Your task to perform on an android device: toggle notifications settings in the gmail app Image 0: 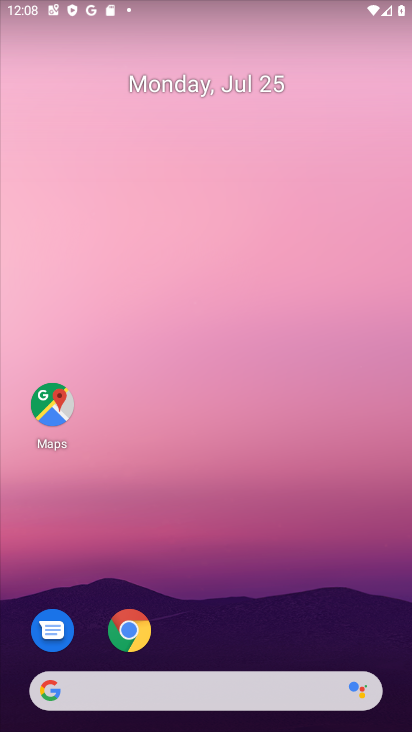
Step 0: press home button
Your task to perform on an android device: toggle notifications settings in the gmail app Image 1: 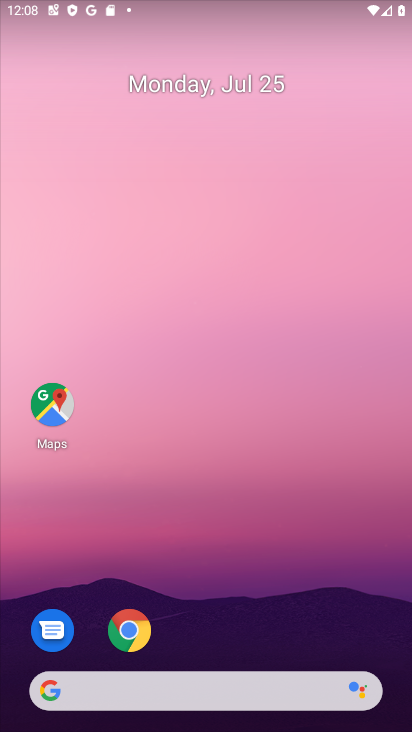
Step 1: drag from (216, 609) to (253, 8)
Your task to perform on an android device: toggle notifications settings in the gmail app Image 2: 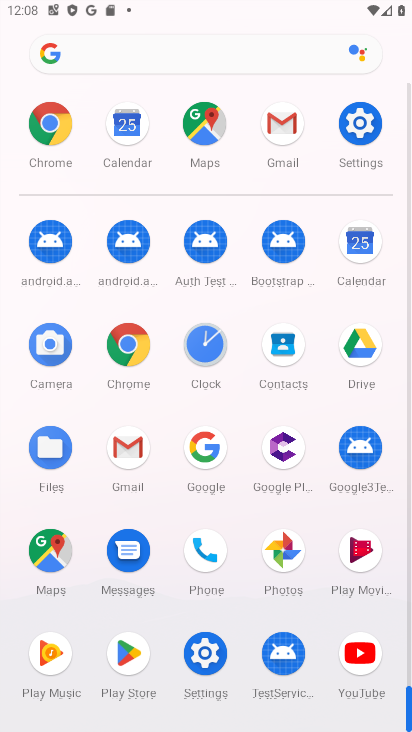
Step 2: drag from (98, 576) to (99, 246)
Your task to perform on an android device: toggle notifications settings in the gmail app Image 3: 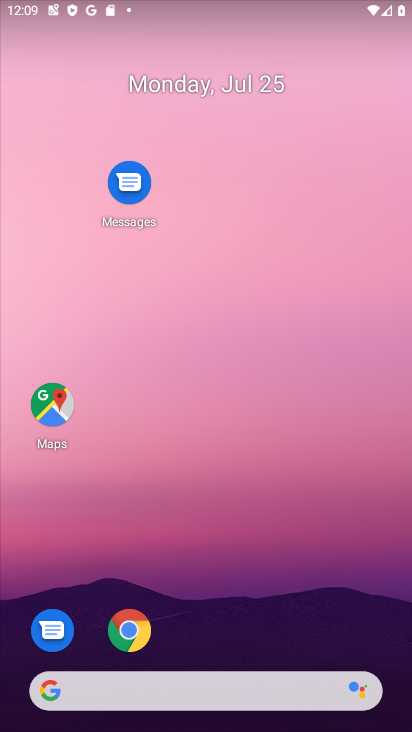
Step 3: drag from (246, 552) to (207, 101)
Your task to perform on an android device: toggle notifications settings in the gmail app Image 4: 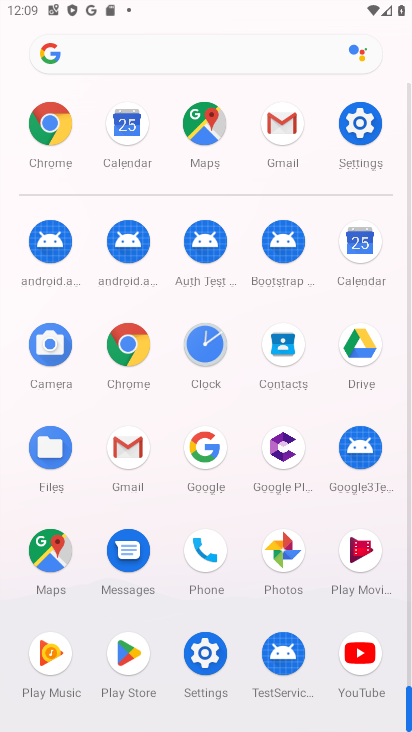
Step 4: drag from (158, 703) to (219, 354)
Your task to perform on an android device: toggle notifications settings in the gmail app Image 5: 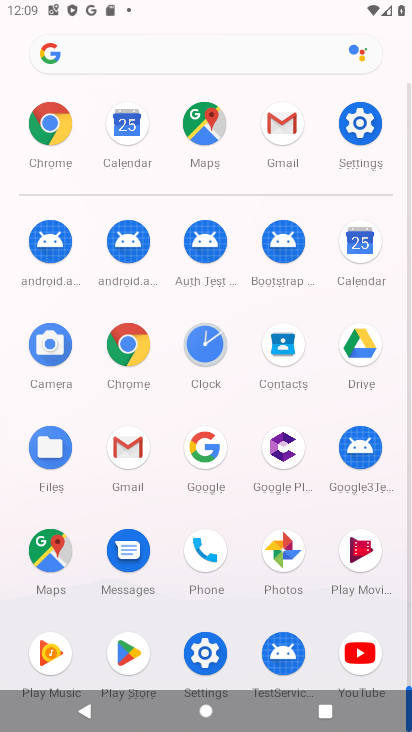
Step 5: drag from (178, 484) to (197, 264)
Your task to perform on an android device: toggle notifications settings in the gmail app Image 6: 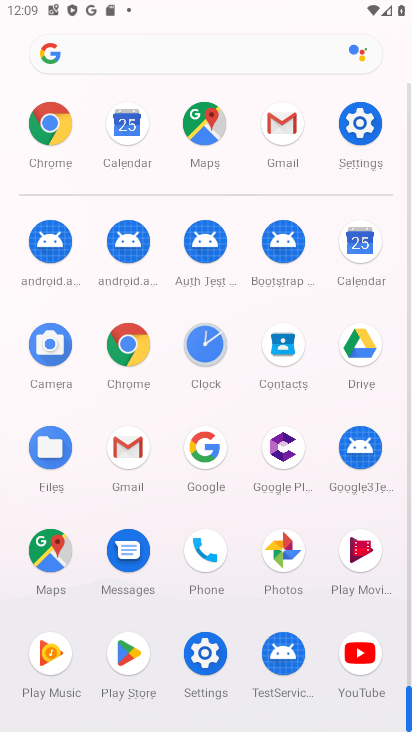
Step 6: click (123, 450)
Your task to perform on an android device: toggle notifications settings in the gmail app Image 7: 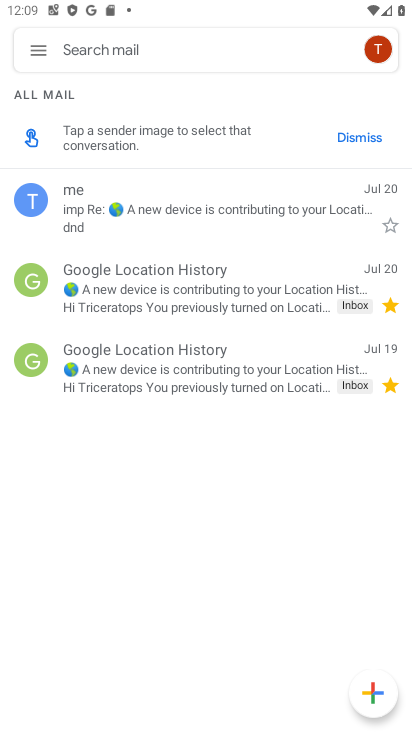
Step 7: click (33, 51)
Your task to perform on an android device: toggle notifications settings in the gmail app Image 8: 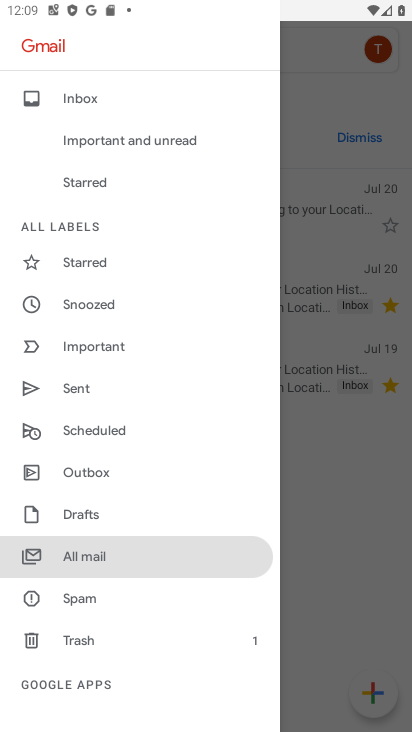
Step 8: press home button
Your task to perform on an android device: toggle notifications settings in the gmail app Image 9: 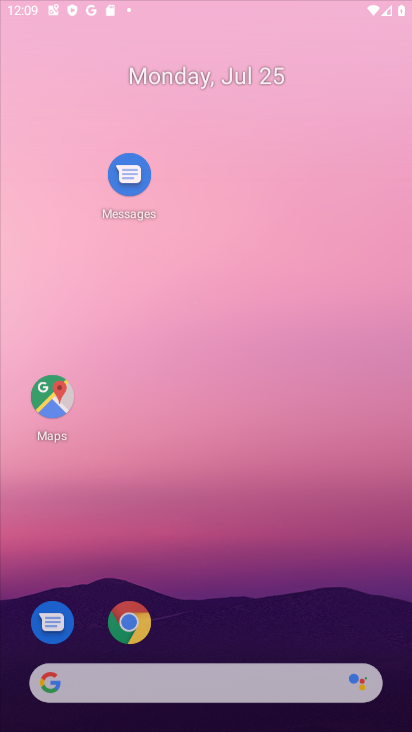
Step 9: drag from (340, 641) to (238, 222)
Your task to perform on an android device: toggle notifications settings in the gmail app Image 10: 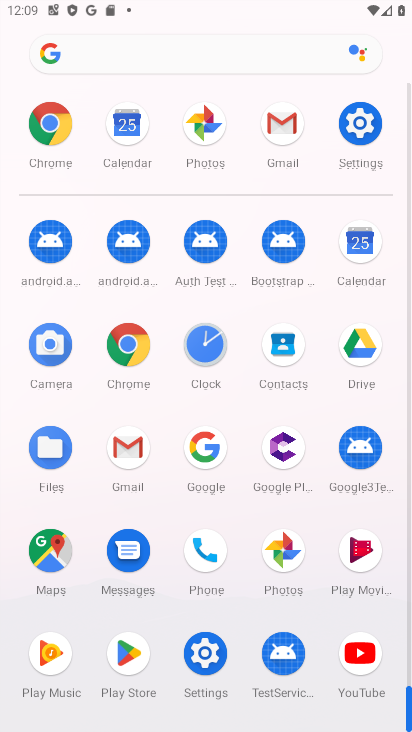
Step 10: click (302, 146)
Your task to perform on an android device: toggle notifications settings in the gmail app Image 11: 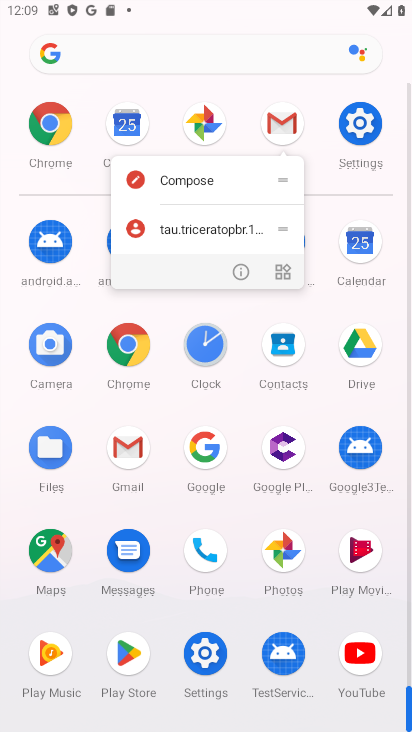
Step 11: click (240, 272)
Your task to perform on an android device: toggle notifications settings in the gmail app Image 12: 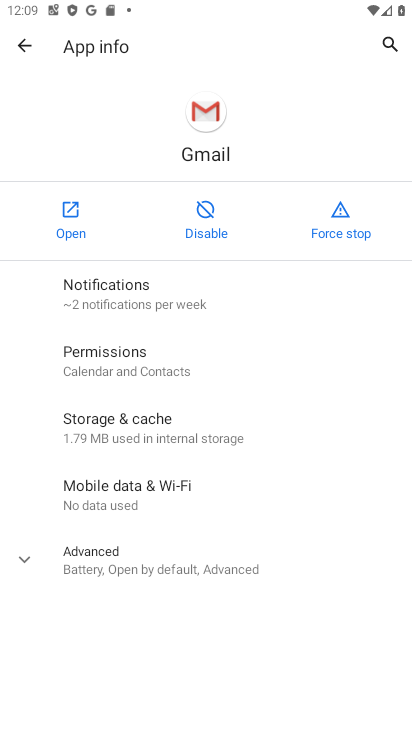
Step 12: click (199, 295)
Your task to perform on an android device: toggle notifications settings in the gmail app Image 13: 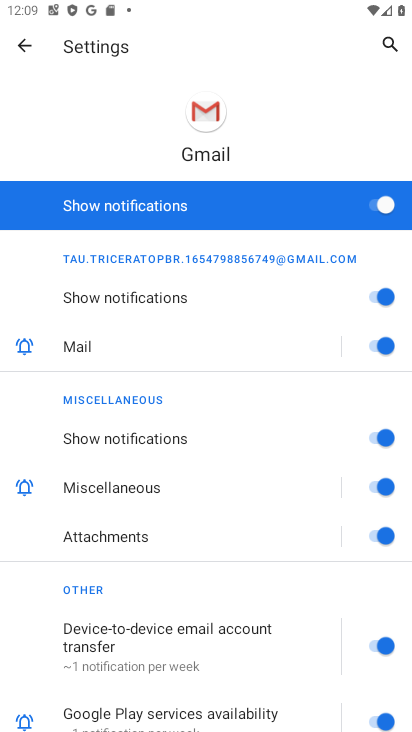
Step 13: click (357, 191)
Your task to perform on an android device: toggle notifications settings in the gmail app Image 14: 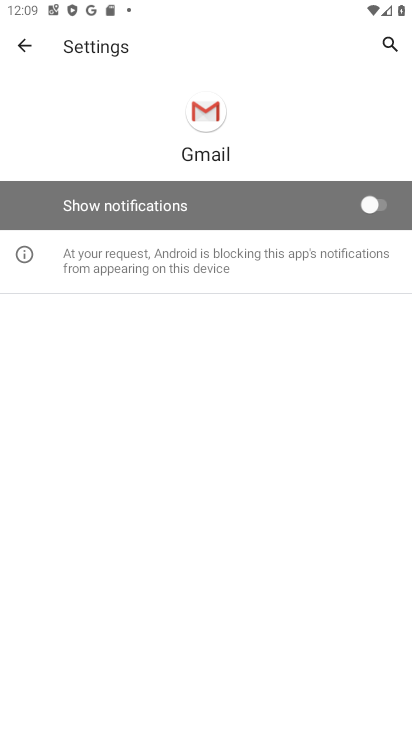
Step 14: task complete